Your task to perform on an android device: turn on wifi Image 0: 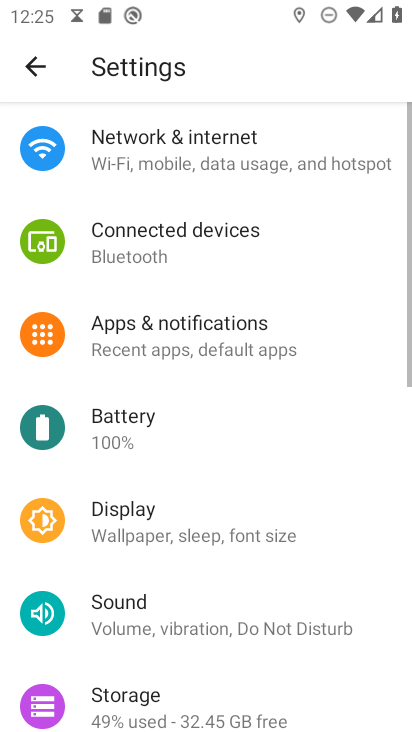
Step 0: press home button
Your task to perform on an android device: turn on wifi Image 1: 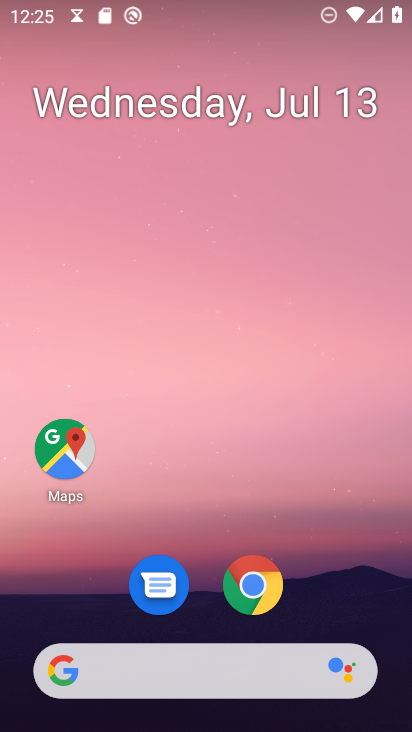
Step 1: drag from (227, 614) to (277, 161)
Your task to perform on an android device: turn on wifi Image 2: 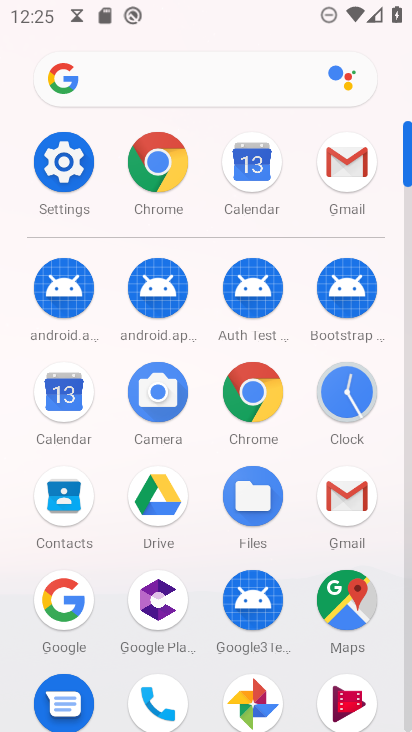
Step 2: click (65, 170)
Your task to perform on an android device: turn on wifi Image 3: 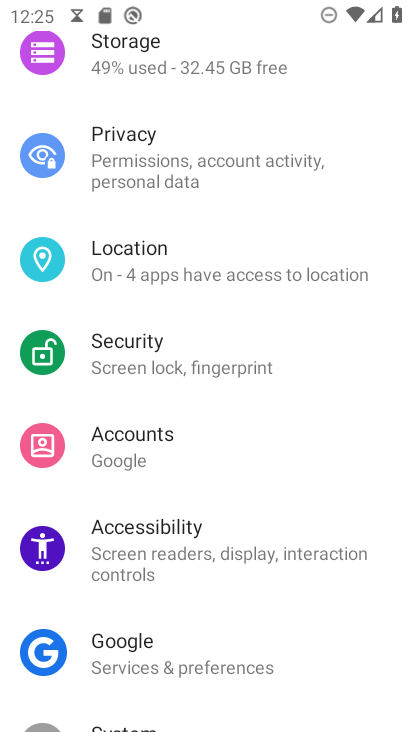
Step 3: drag from (289, 118) to (261, 501)
Your task to perform on an android device: turn on wifi Image 4: 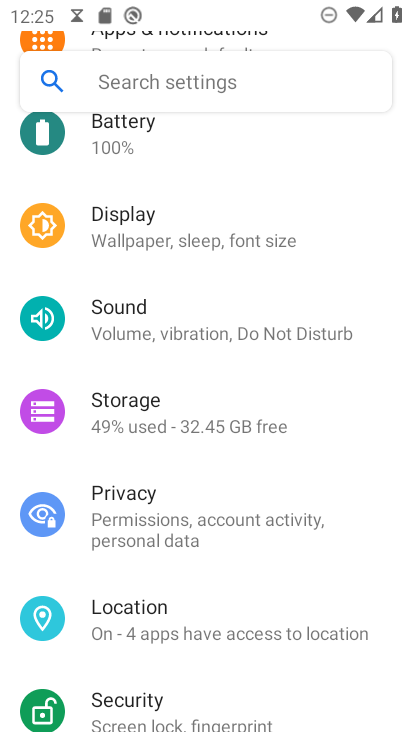
Step 4: drag from (255, 153) to (226, 526)
Your task to perform on an android device: turn on wifi Image 5: 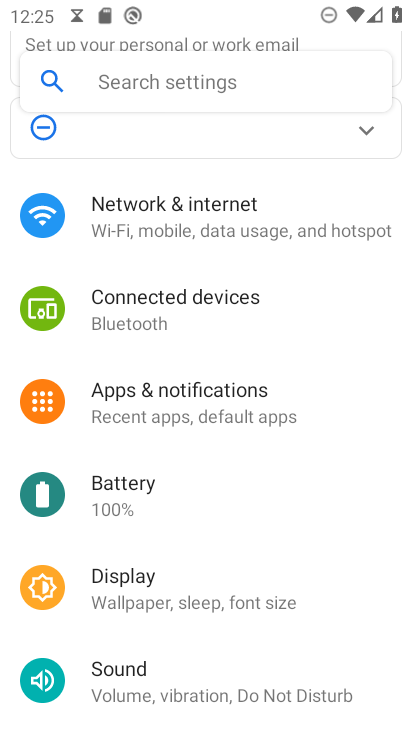
Step 5: click (246, 221)
Your task to perform on an android device: turn on wifi Image 6: 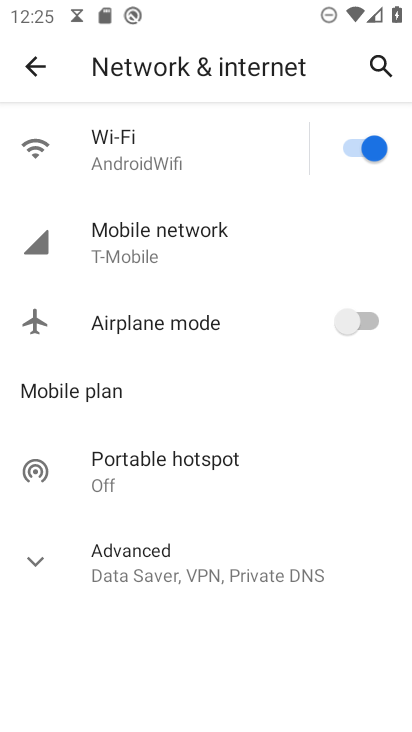
Step 6: task complete